Your task to perform on an android device: Check the weather Image 0: 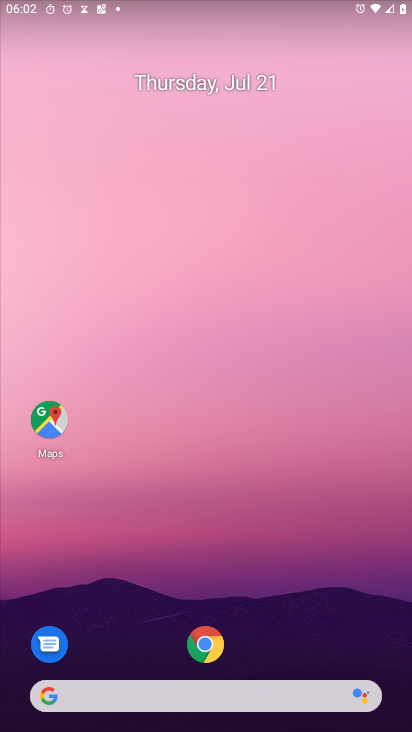
Step 0: press home button
Your task to perform on an android device: Check the weather Image 1: 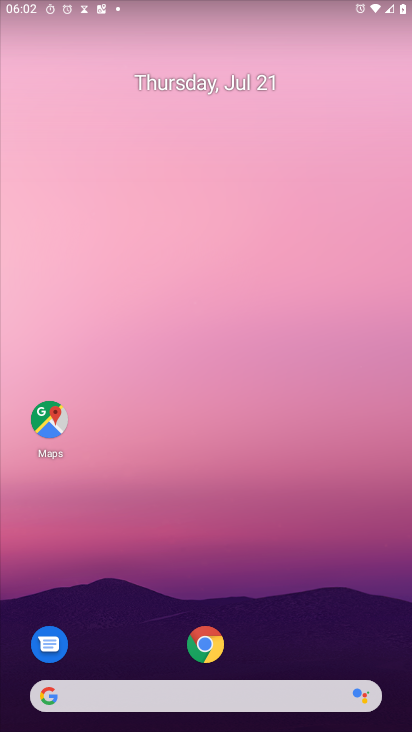
Step 1: click (44, 690)
Your task to perform on an android device: Check the weather Image 2: 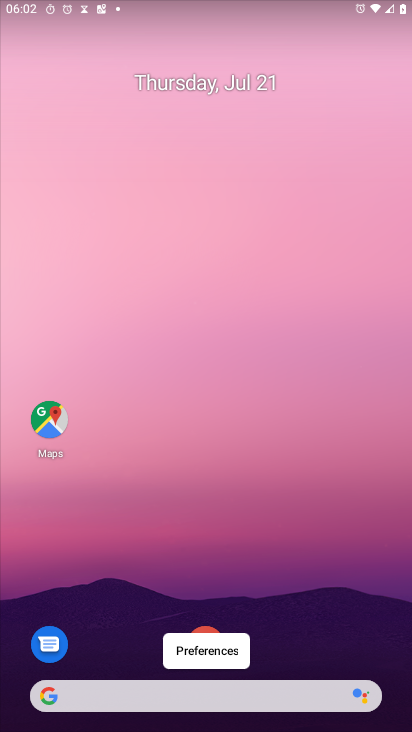
Step 2: click (42, 692)
Your task to perform on an android device: Check the weather Image 3: 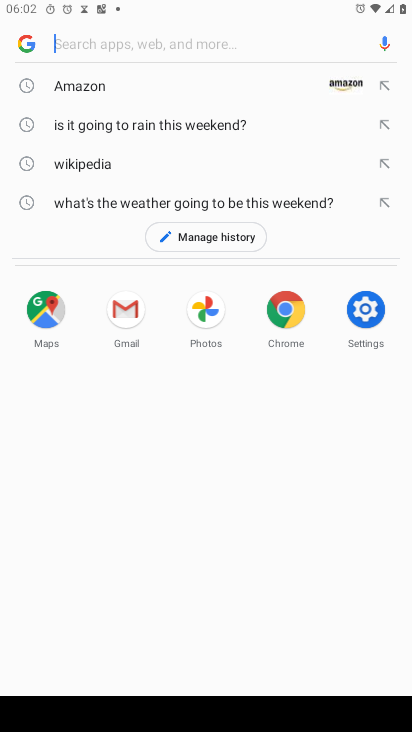
Step 3: type "weather"
Your task to perform on an android device: Check the weather Image 4: 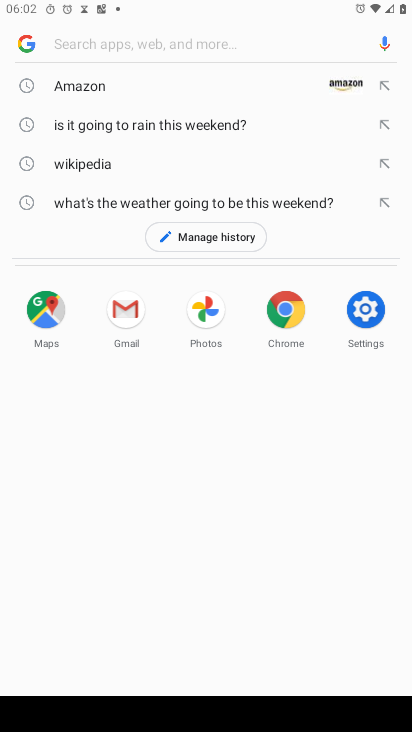
Step 4: click (86, 40)
Your task to perform on an android device: Check the weather Image 5: 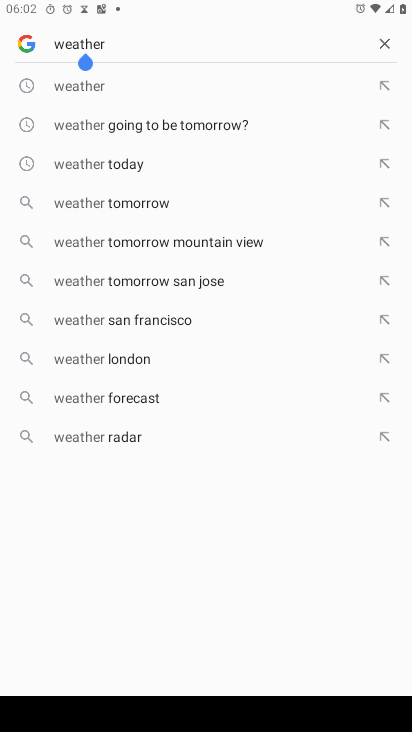
Step 5: press enter
Your task to perform on an android device: Check the weather Image 6: 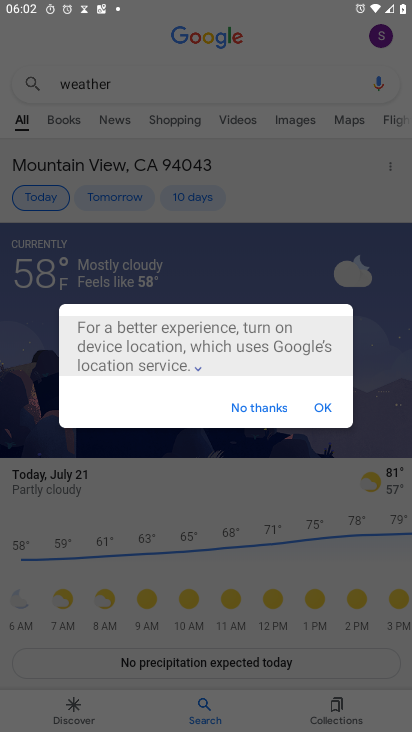
Step 6: click (254, 411)
Your task to perform on an android device: Check the weather Image 7: 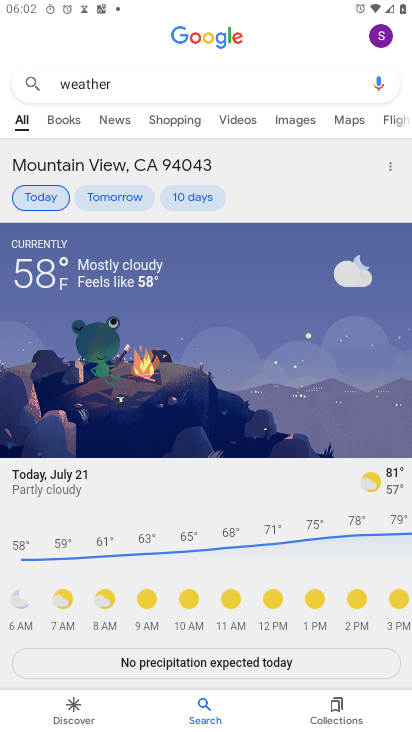
Step 7: task complete